Your task to perform on an android device: open sync settings in chrome Image 0: 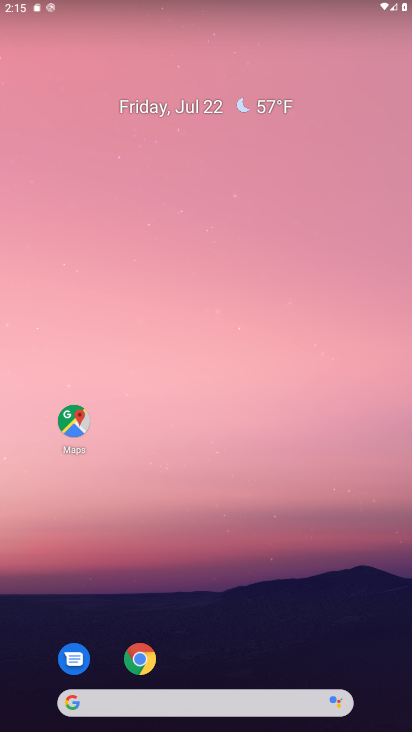
Step 0: click (136, 671)
Your task to perform on an android device: open sync settings in chrome Image 1: 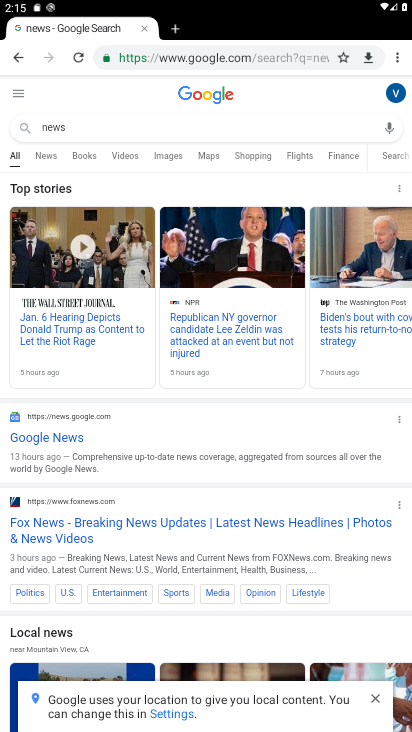
Step 1: click (396, 57)
Your task to perform on an android device: open sync settings in chrome Image 2: 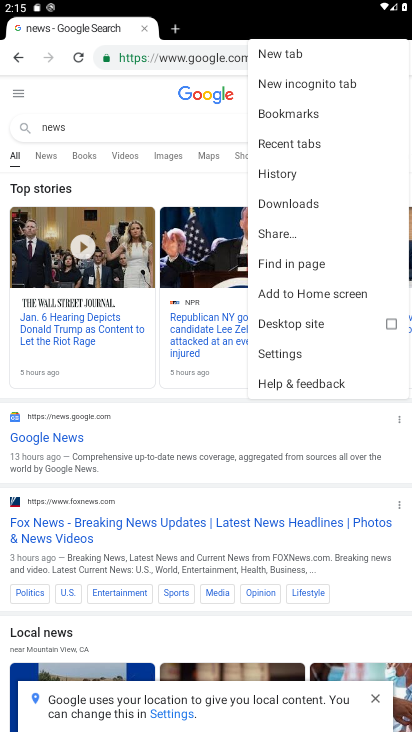
Step 2: click (303, 356)
Your task to perform on an android device: open sync settings in chrome Image 3: 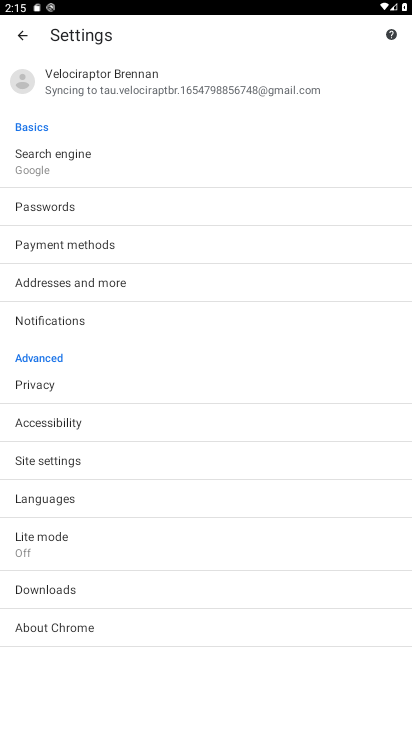
Step 3: click (148, 85)
Your task to perform on an android device: open sync settings in chrome Image 4: 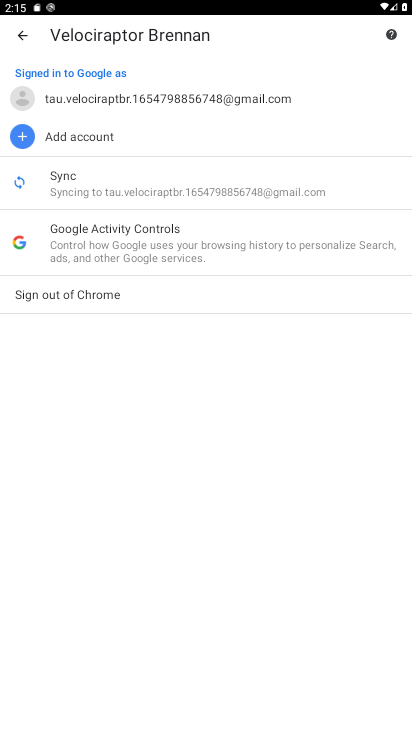
Step 4: click (181, 193)
Your task to perform on an android device: open sync settings in chrome Image 5: 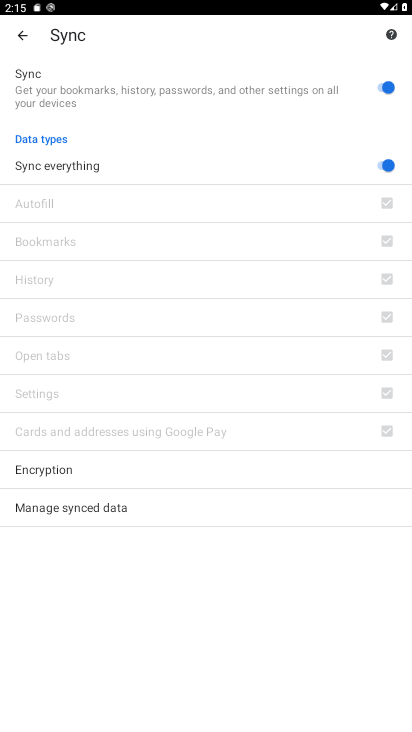
Step 5: task complete